Your task to perform on an android device: turn on priority inbox in the gmail app Image 0: 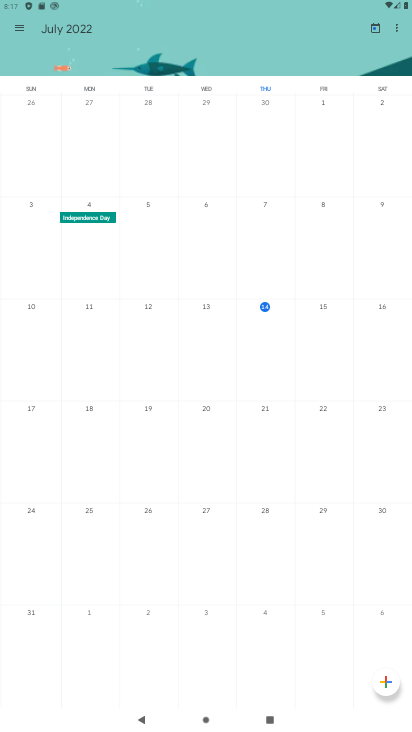
Step 0: press home button
Your task to perform on an android device: turn on priority inbox in the gmail app Image 1: 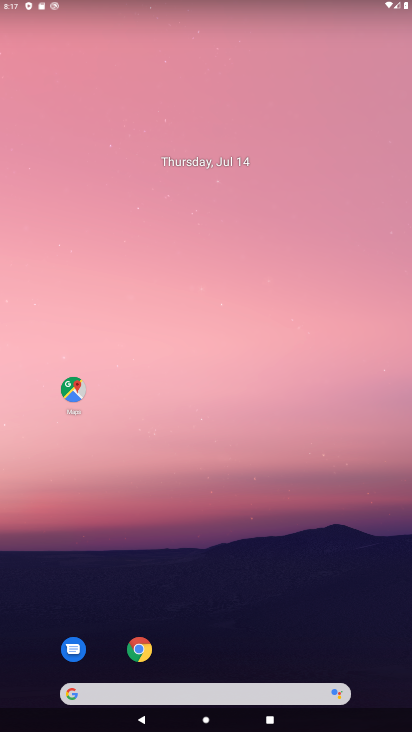
Step 1: drag from (217, 614) to (234, 139)
Your task to perform on an android device: turn on priority inbox in the gmail app Image 2: 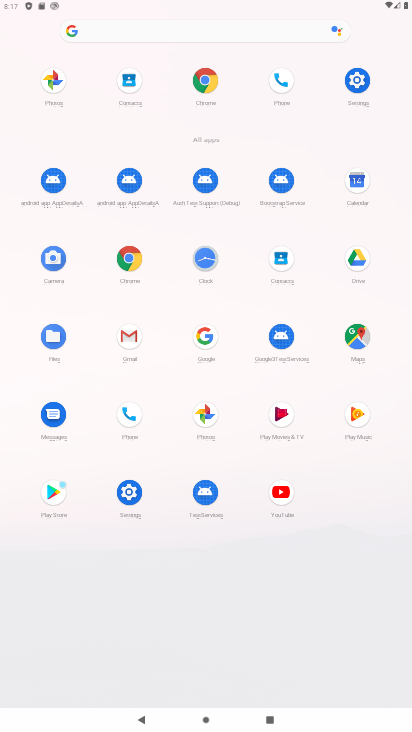
Step 2: click (133, 335)
Your task to perform on an android device: turn on priority inbox in the gmail app Image 3: 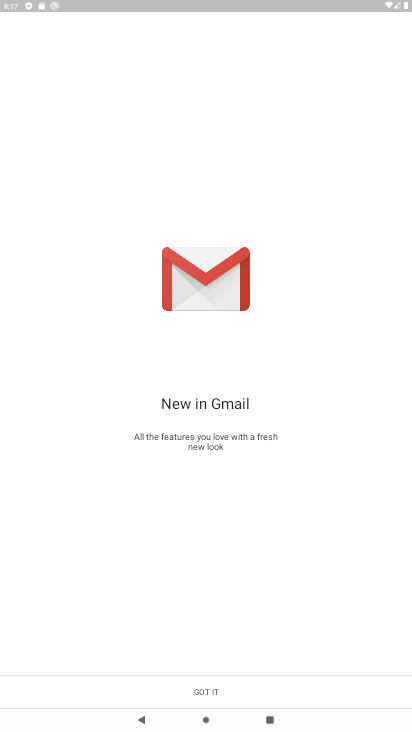
Step 3: click (265, 684)
Your task to perform on an android device: turn on priority inbox in the gmail app Image 4: 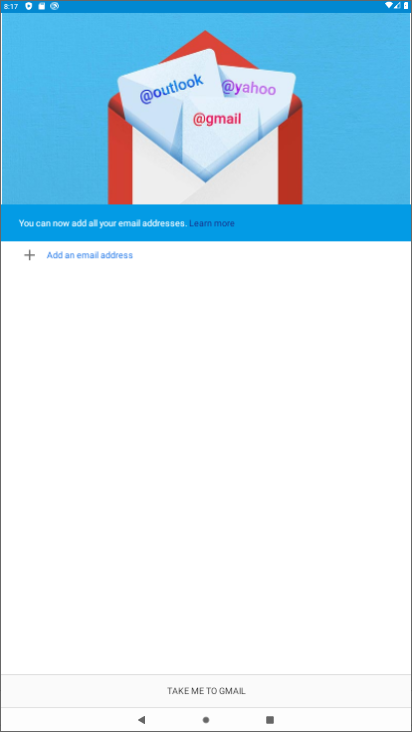
Step 4: click (265, 684)
Your task to perform on an android device: turn on priority inbox in the gmail app Image 5: 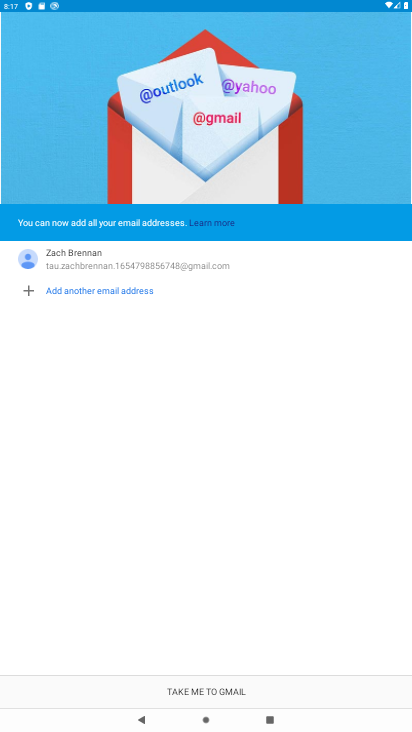
Step 5: click (266, 684)
Your task to perform on an android device: turn on priority inbox in the gmail app Image 6: 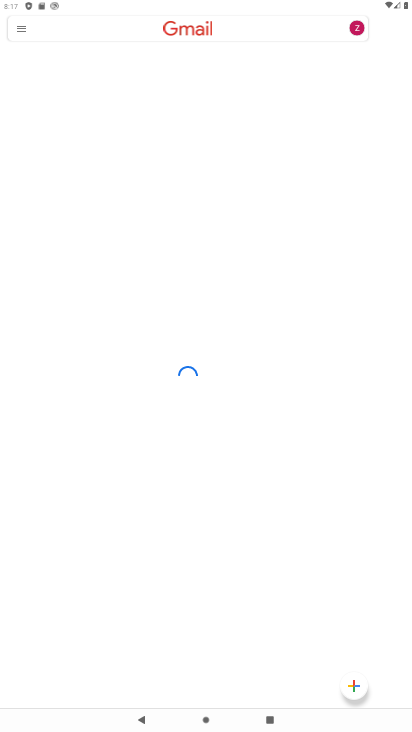
Step 6: click (24, 27)
Your task to perform on an android device: turn on priority inbox in the gmail app Image 7: 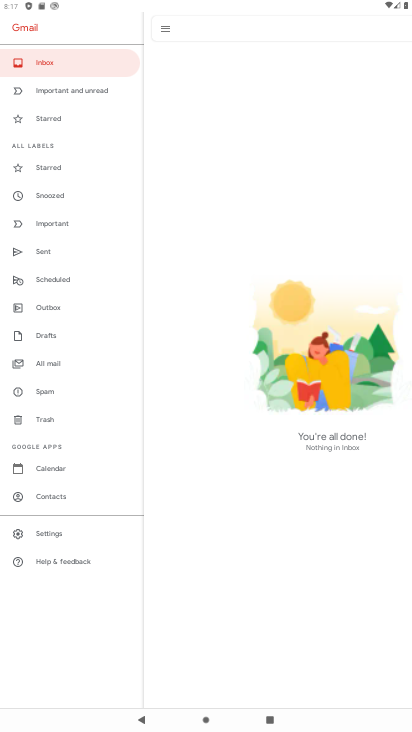
Step 7: click (64, 533)
Your task to perform on an android device: turn on priority inbox in the gmail app Image 8: 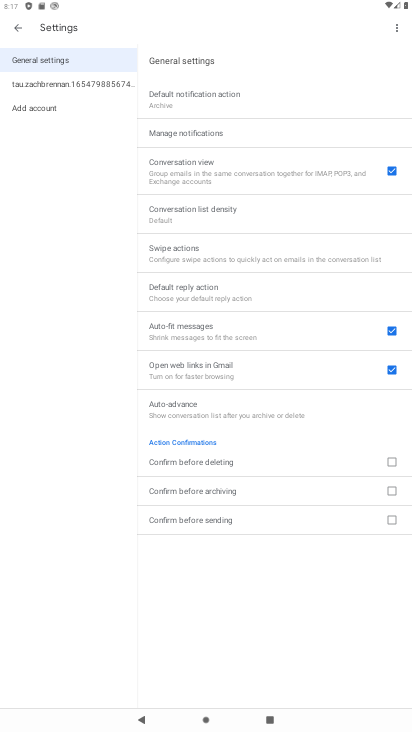
Step 8: click (90, 89)
Your task to perform on an android device: turn on priority inbox in the gmail app Image 9: 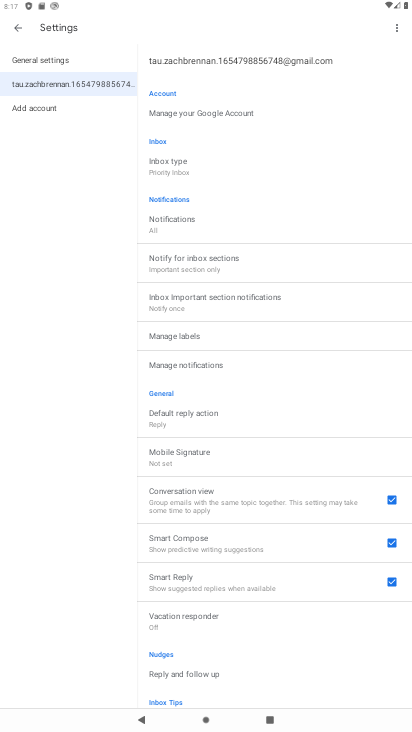
Step 9: click (168, 168)
Your task to perform on an android device: turn on priority inbox in the gmail app Image 10: 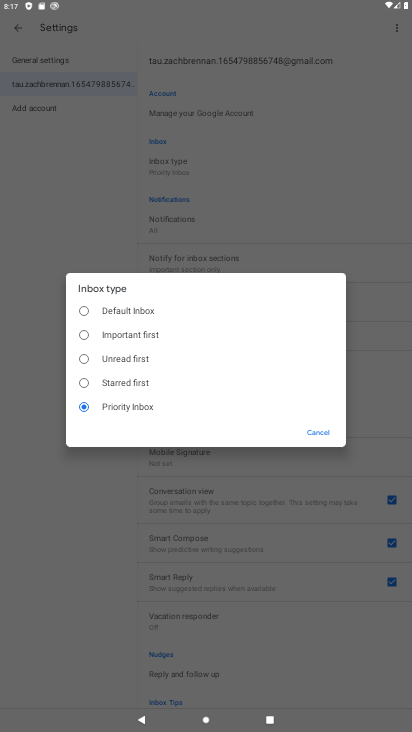
Step 10: task complete